Your task to perform on an android device: read, delete, or share a saved page in the chrome app Image 0: 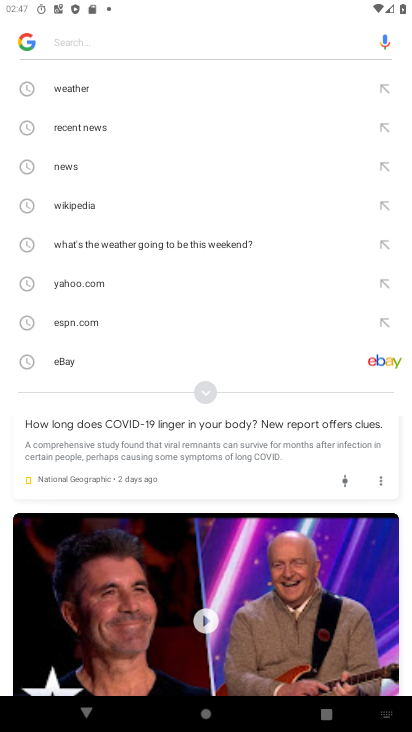
Step 0: press home button
Your task to perform on an android device: read, delete, or share a saved page in the chrome app Image 1: 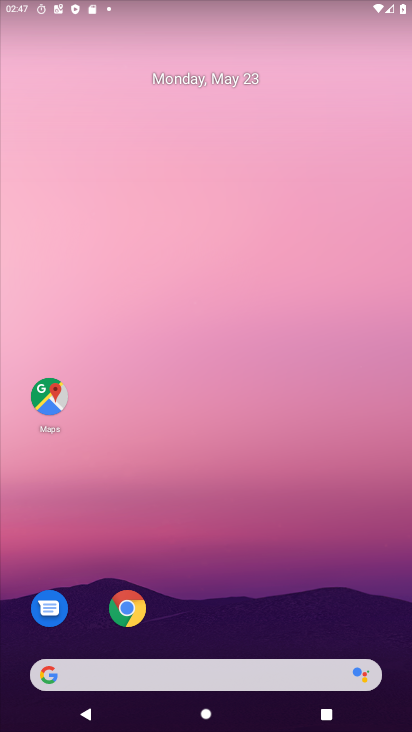
Step 1: drag from (193, 522) to (178, 171)
Your task to perform on an android device: read, delete, or share a saved page in the chrome app Image 2: 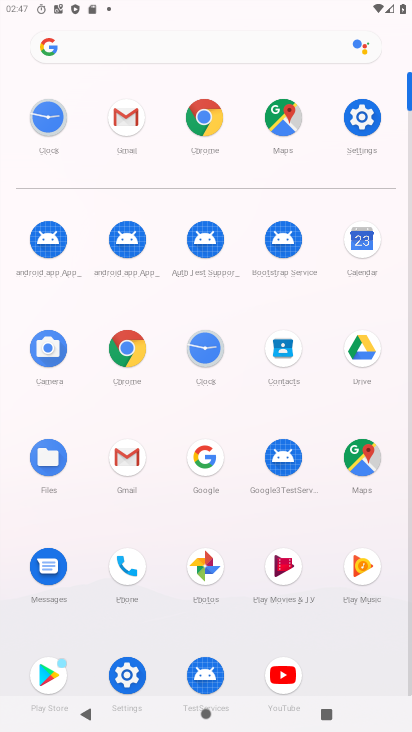
Step 2: click (196, 113)
Your task to perform on an android device: read, delete, or share a saved page in the chrome app Image 3: 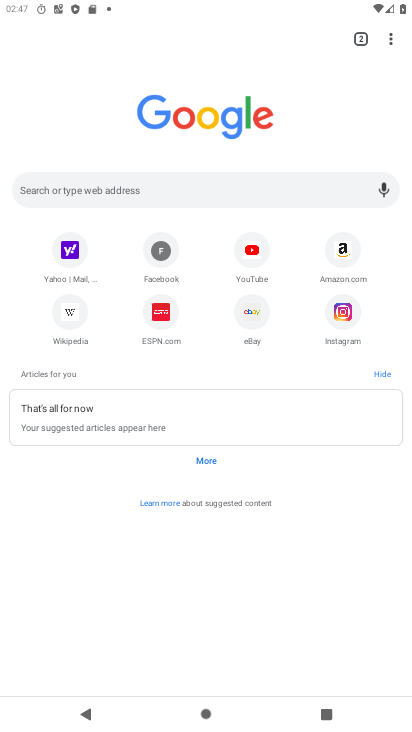
Step 3: click (392, 37)
Your task to perform on an android device: read, delete, or share a saved page in the chrome app Image 4: 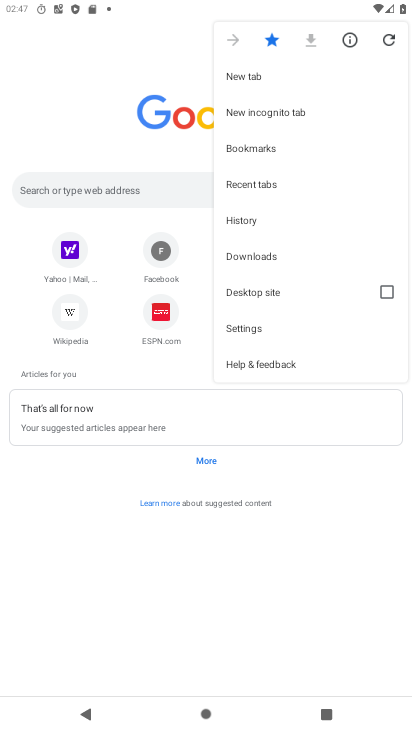
Step 4: click (265, 328)
Your task to perform on an android device: read, delete, or share a saved page in the chrome app Image 5: 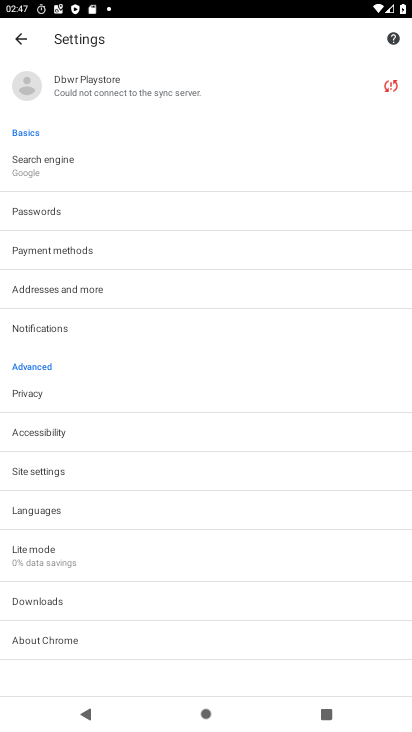
Step 5: click (20, 40)
Your task to perform on an android device: read, delete, or share a saved page in the chrome app Image 6: 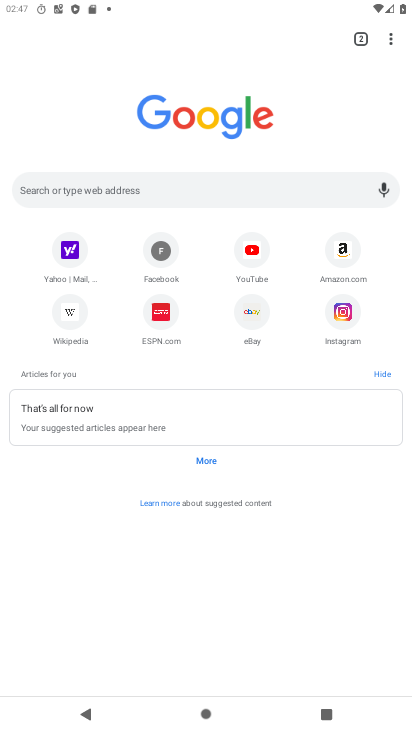
Step 6: click (392, 34)
Your task to perform on an android device: read, delete, or share a saved page in the chrome app Image 7: 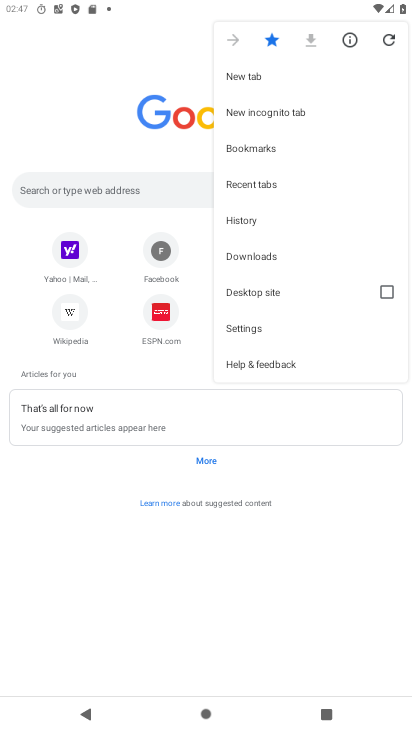
Step 7: click (248, 254)
Your task to perform on an android device: read, delete, or share a saved page in the chrome app Image 8: 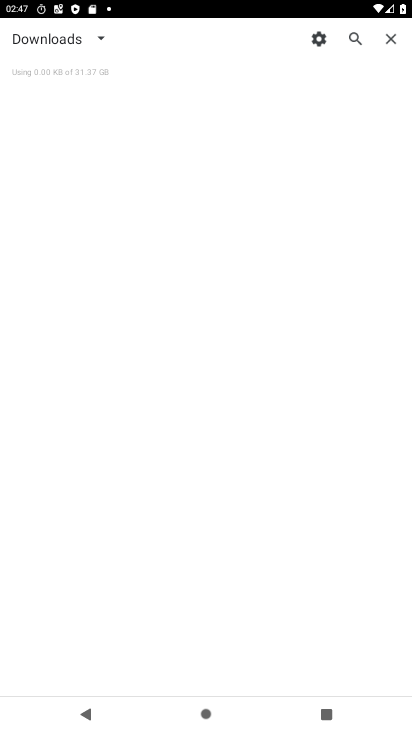
Step 8: task complete